Your task to perform on an android device: find which apps use the phone's location Image 0: 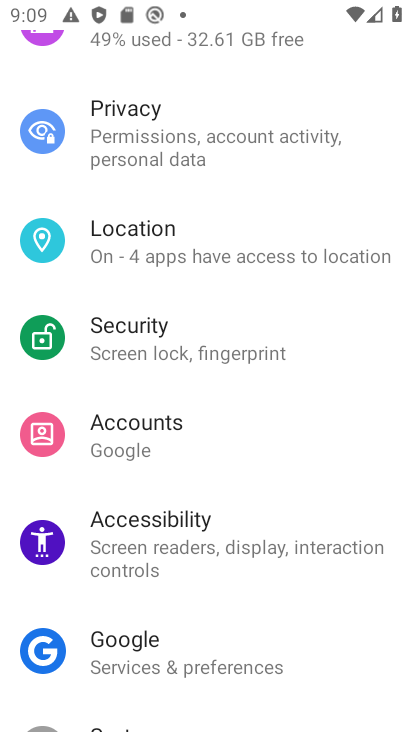
Step 0: drag from (214, 135) to (213, 607)
Your task to perform on an android device: find which apps use the phone's location Image 1: 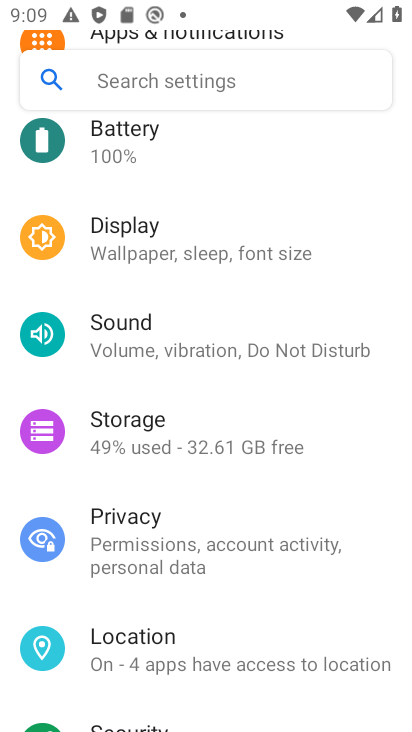
Step 1: drag from (239, 192) to (148, 594)
Your task to perform on an android device: find which apps use the phone's location Image 2: 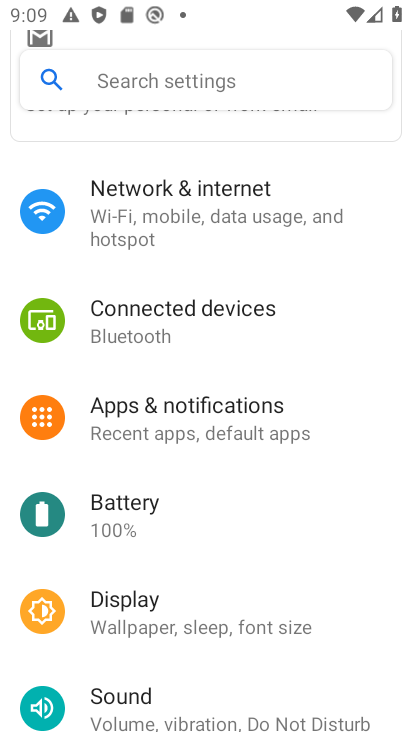
Step 2: click (109, 421)
Your task to perform on an android device: find which apps use the phone's location Image 3: 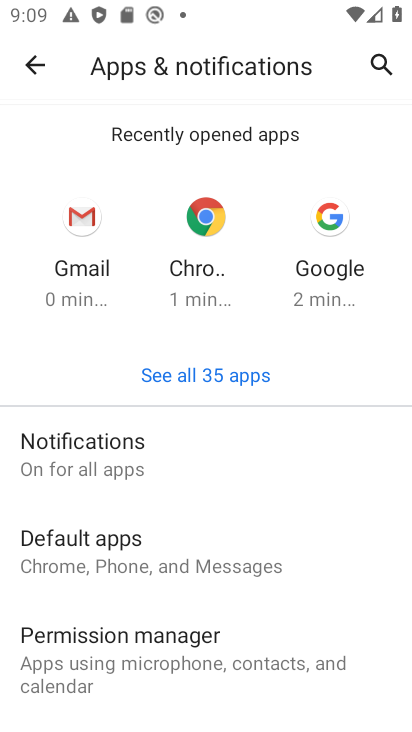
Step 3: drag from (303, 573) to (251, 23)
Your task to perform on an android device: find which apps use the phone's location Image 4: 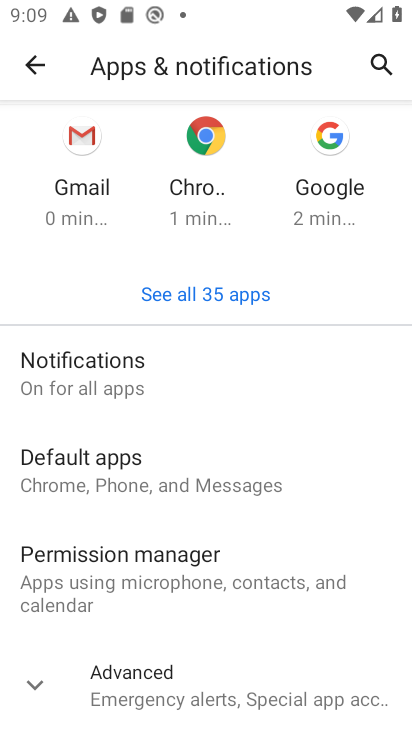
Step 4: click (88, 716)
Your task to perform on an android device: find which apps use the phone's location Image 5: 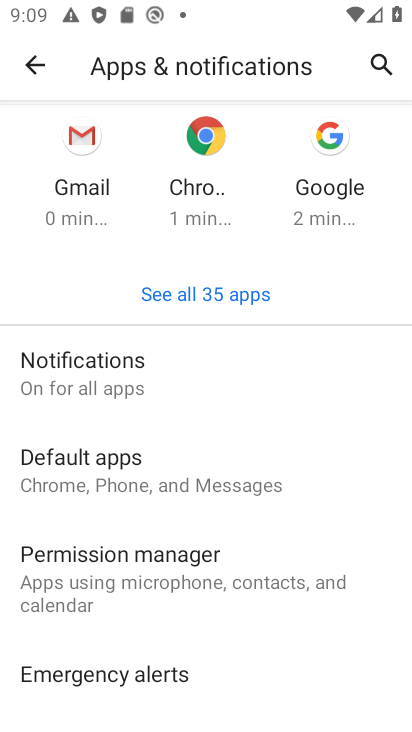
Step 5: drag from (180, 631) to (244, 18)
Your task to perform on an android device: find which apps use the phone's location Image 6: 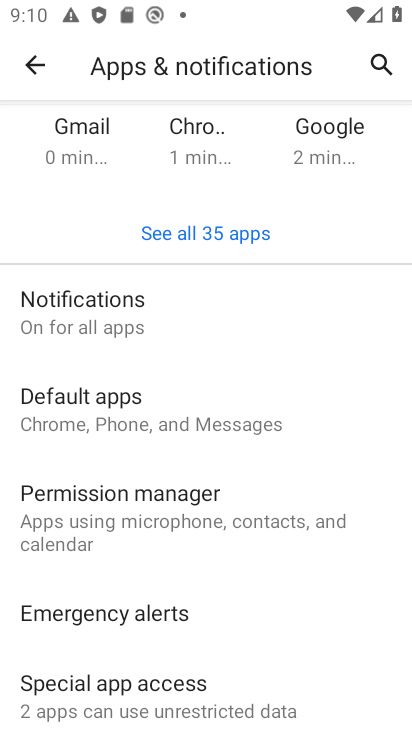
Step 6: click (98, 394)
Your task to perform on an android device: find which apps use the phone's location Image 7: 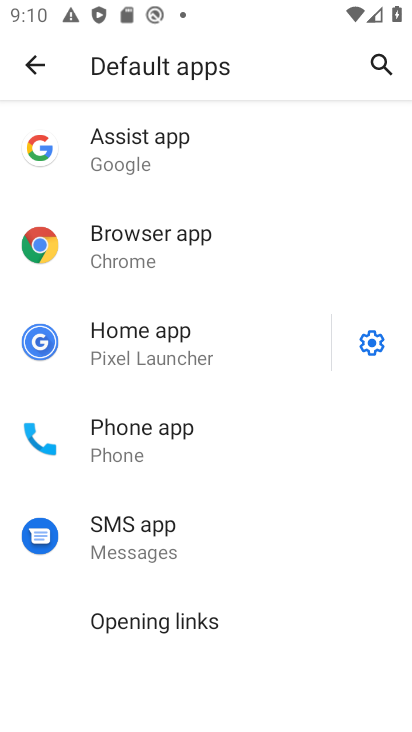
Step 7: task complete